Your task to perform on an android device: all mails in gmail Image 0: 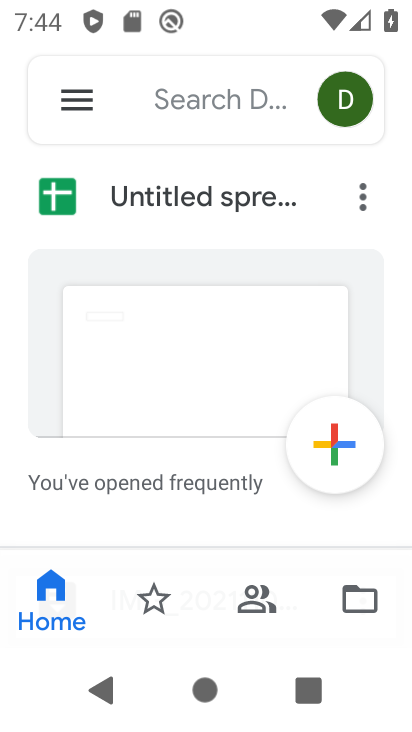
Step 0: press home button
Your task to perform on an android device: all mails in gmail Image 1: 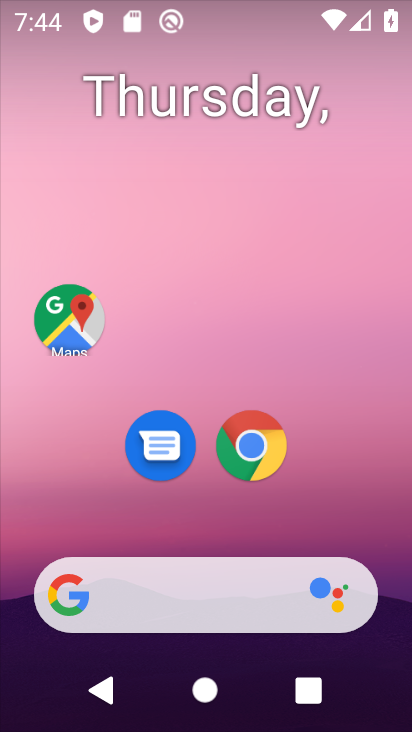
Step 1: drag from (363, 545) to (299, 1)
Your task to perform on an android device: all mails in gmail Image 2: 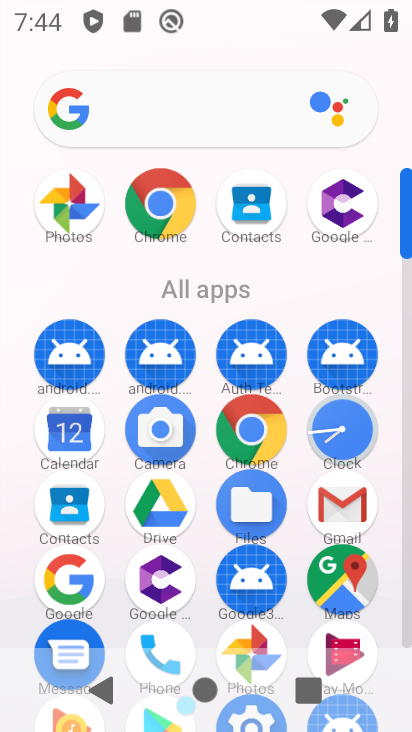
Step 2: click (338, 519)
Your task to perform on an android device: all mails in gmail Image 3: 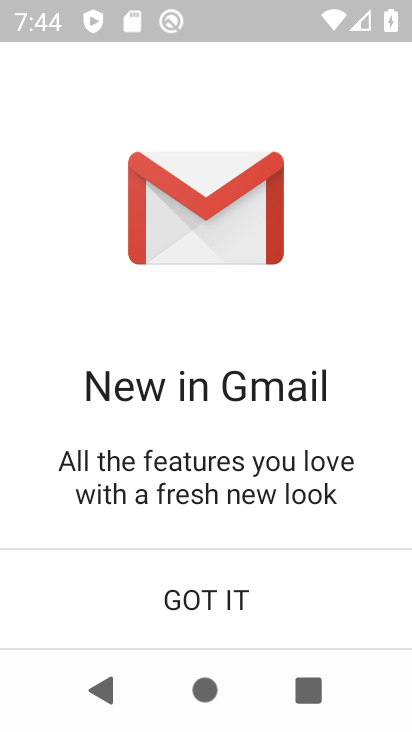
Step 3: click (195, 610)
Your task to perform on an android device: all mails in gmail Image 4: 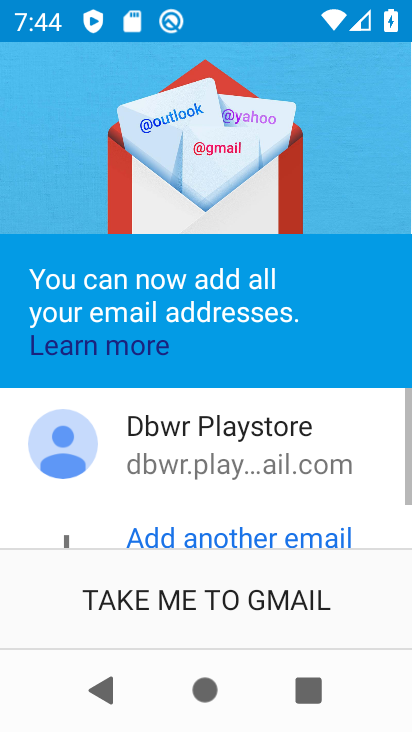
Step 4: click (184, 595)
Your task to perform on an android device: all mails in gmail Image 5: 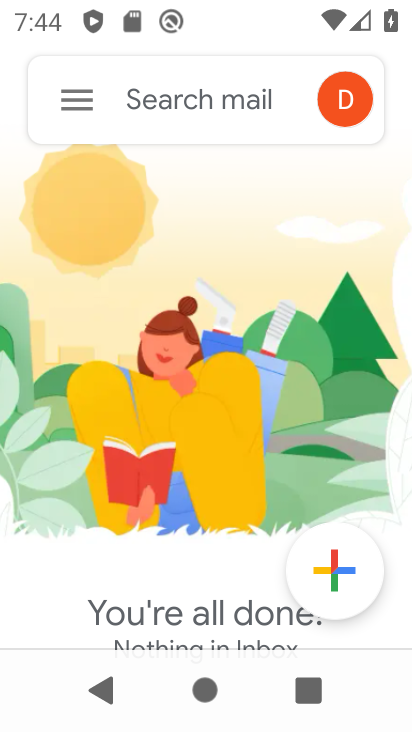
Step 5: click (74, 106)
Your task to perform on an android device: all mails in gmail Image 6: 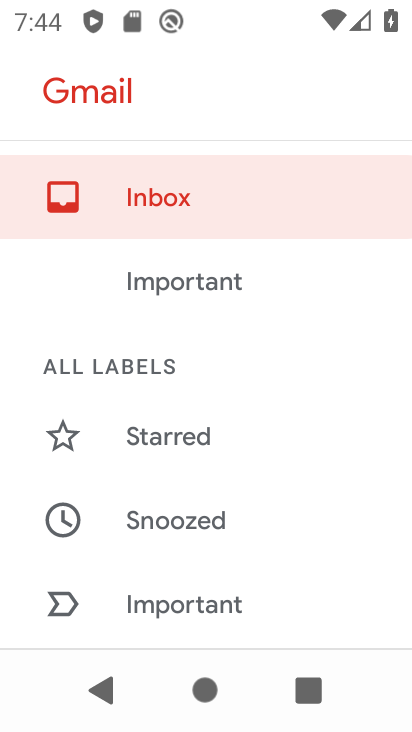
Step 6: drag from (250, 516) to (251, 112)
Your task to perform on an android device: all mails in gmail Image 7: 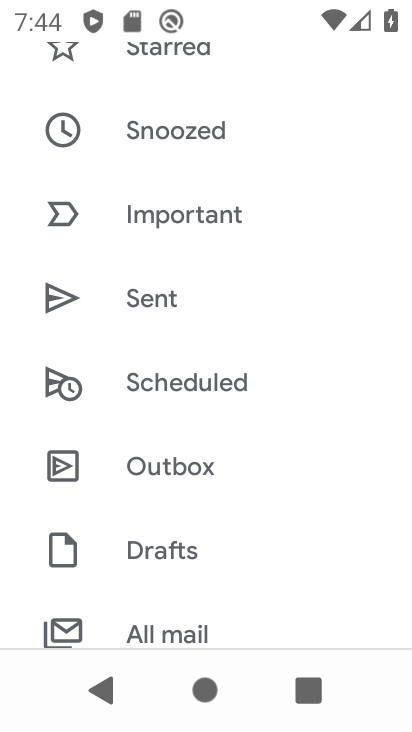
Step 7: drag from (209, 536) to (233, 179)
Your task to perform on an android device: all mails in gmail Image 8: 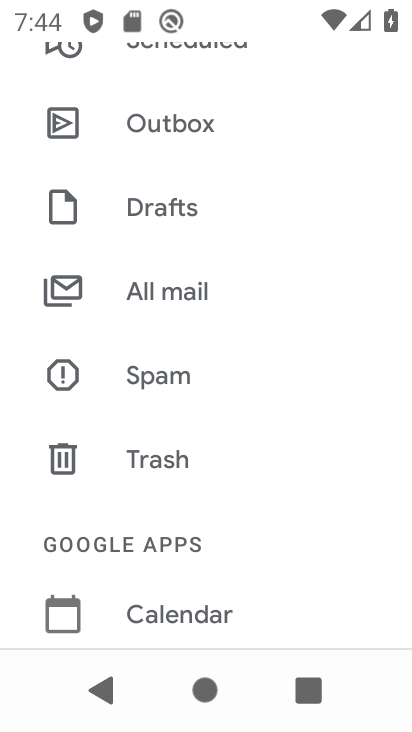
Step 8: click (164, 286)
Your task to perform on an android device: all mails in gmail Image 9: 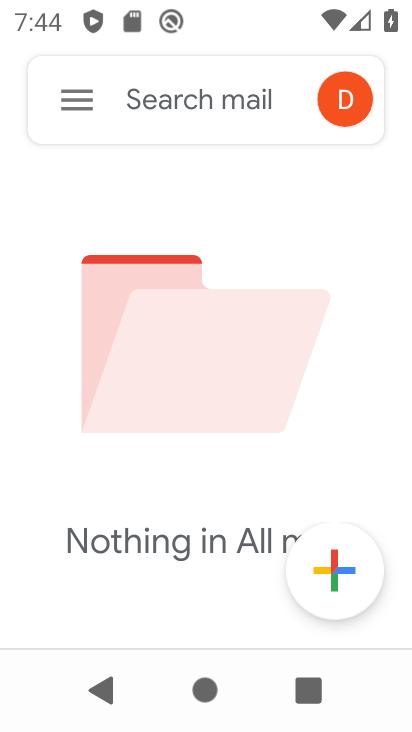
Step 9: task complete